Your task to perform on an android device: Show me popular videos on Youtube Image 0: 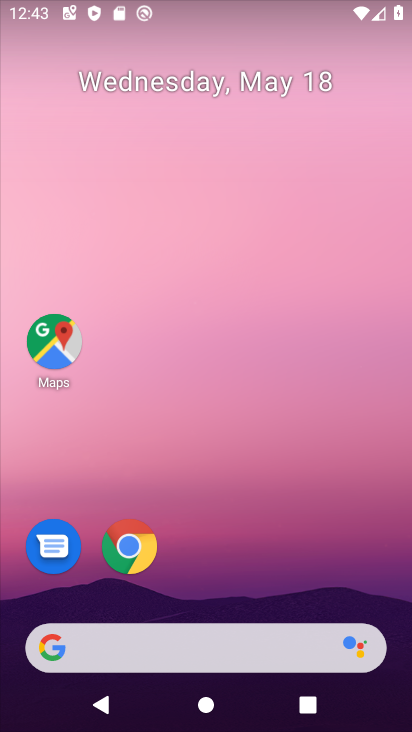
Step 0: drag from (267, 573) to (336, 2)
Your task to perform on an android device: Show me popular videos on Youtube Image 1: 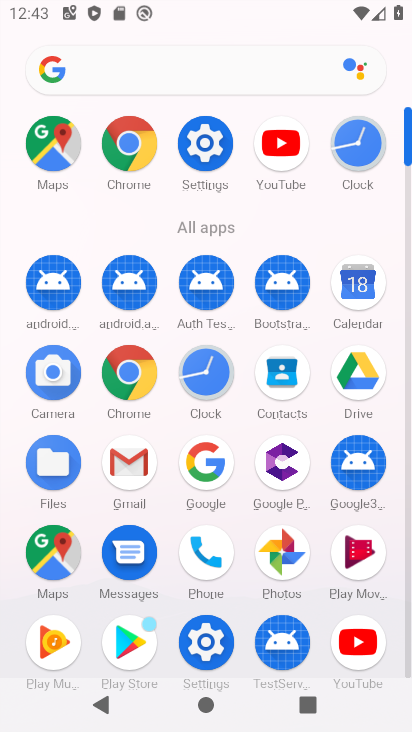
Step 1: click (253, 150)
Your task to perform on an android device: Show me popular videos on Youtube Image 2: 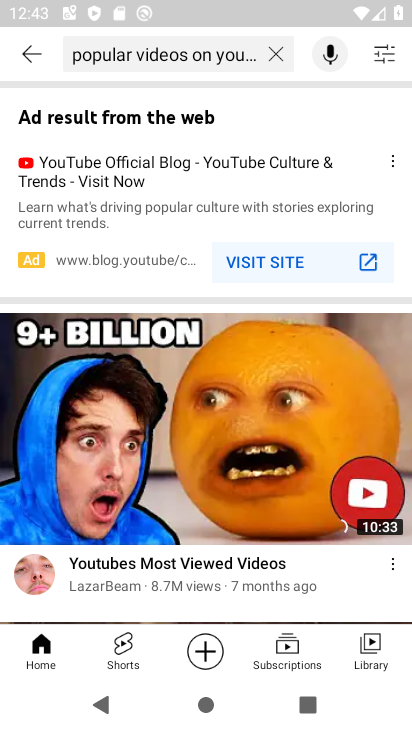
Step 2: task complete